Your task to perform on an android device: turn on bluetooth scan Image 0: 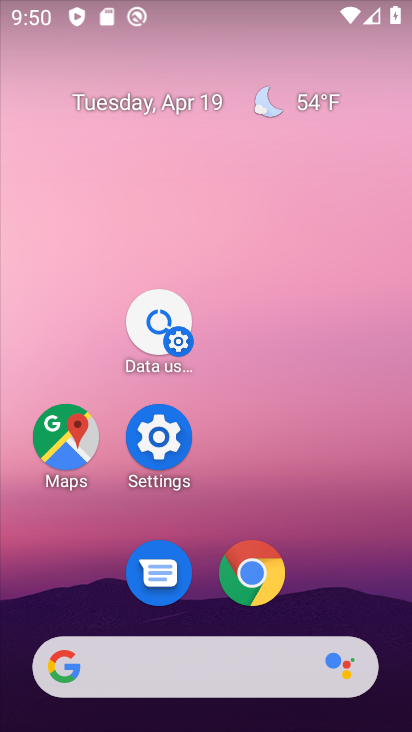
Step 0: drag from (343, 324) to (310, 3)
Your task to perform on an android device: turn on bluetooth scan Image 1: 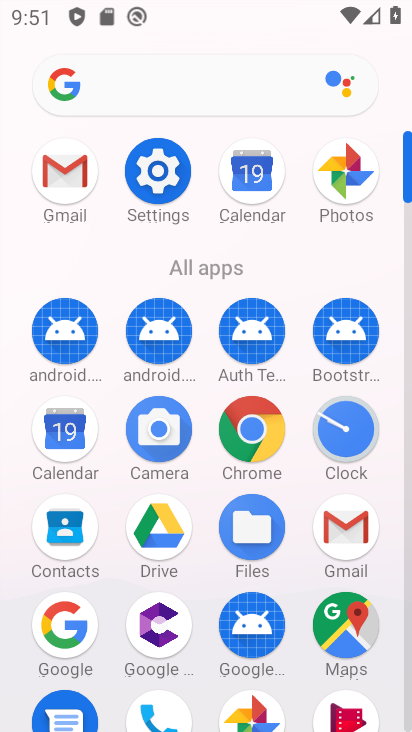
Step 1: click (160, 214)
Your task to perform on an android device: turn on bluetooth scan Image 2: 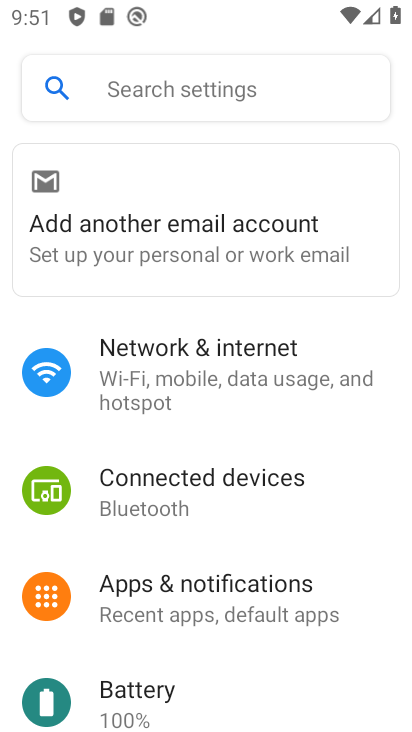
Step 2: drag from (326, 658) to (371, 65)
Your task to perform on an android device: turn on bluetooth scan Image 3: 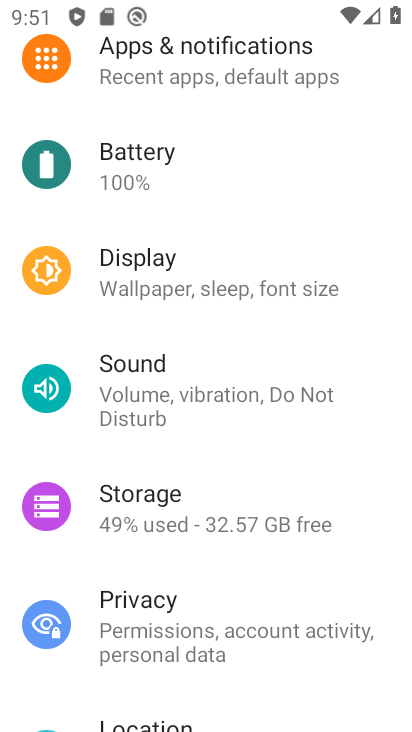
Step 3: drag from (352, 655) to (327, 85)
Your task to perform on an android device: turn on bluetooth scan Image 4: 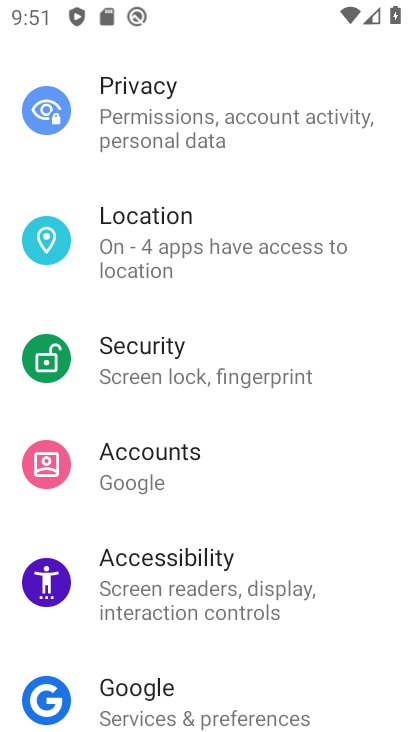
Step 4: drag from (354, 619) to (329, 154)
Your task to perform on an android device: turn on bluetooth scan Image 5: 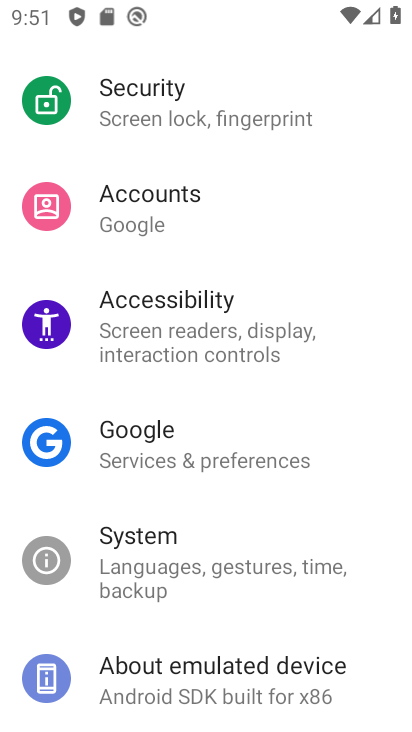
Step 5: drag from (335, 274) to (343, 543)
Your task to perform on an android device: turn on bluetooth scan Image 6: 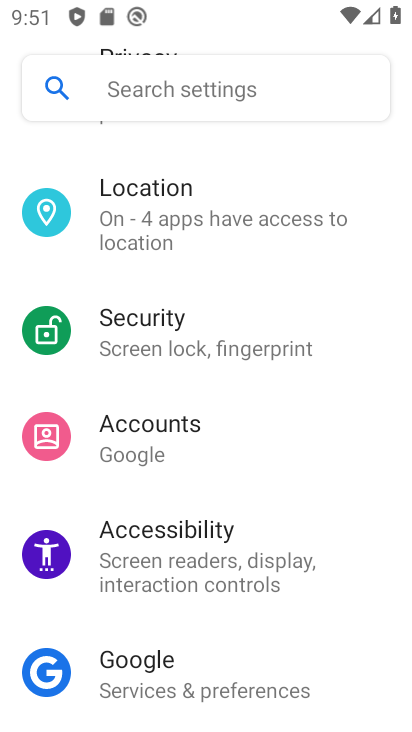
Step 6: click (119, 216)
Your task to perform on an android device: turn on bluetooth scan Image 7: 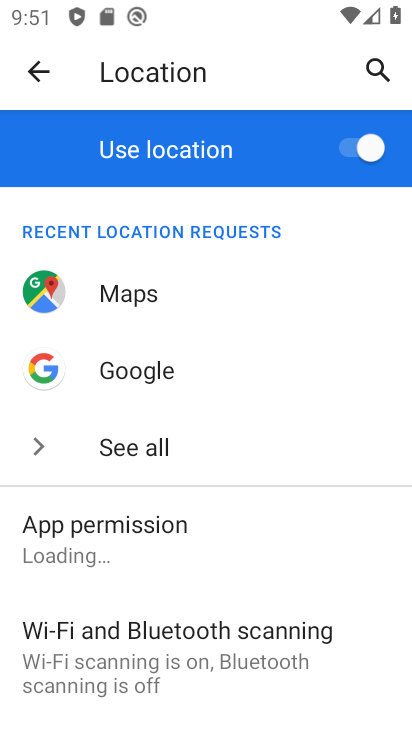
Step 7: drag from (306, 456) to (302, 177)
Your task to perform on an android device: turn on bluetooth scan Image 8: 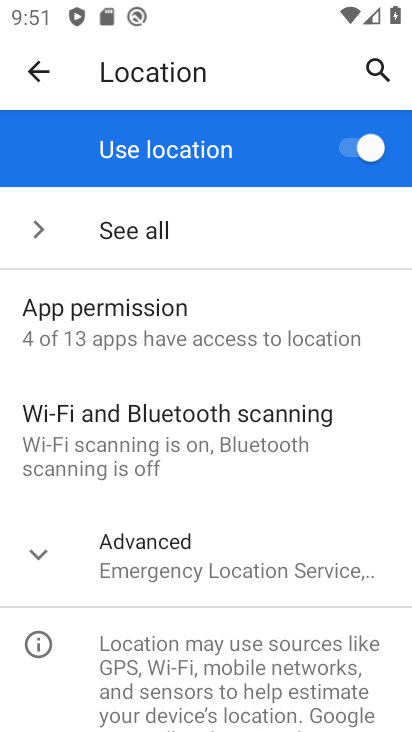
Step 8: click (118, 447)
Your task to perform on an android device: turn on bluetooth scan Image 9: 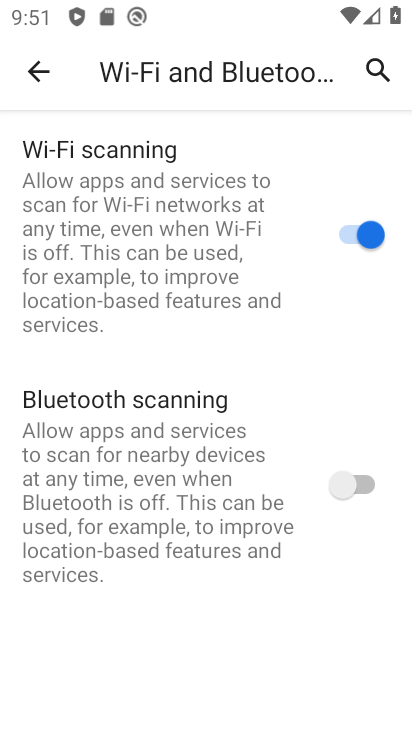
Step 9: click (346, 488)
Your task to perform on an android device: turn on bluetooth scan Image 10: 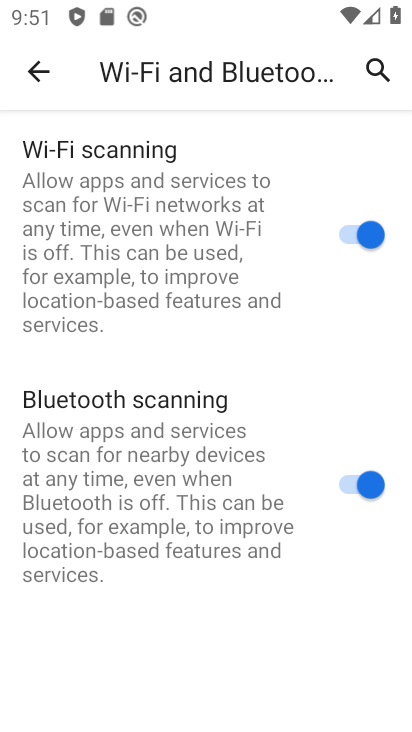
Step 10: task complete